Your task to perform on an android device: turn on improve location accuracy Image 0: 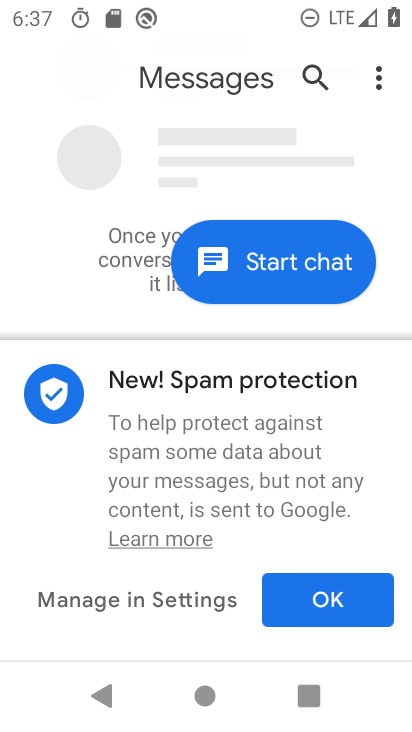
Step 0: press home button
Your task to perform on an android device: turn on improve location accuracy Image 1: 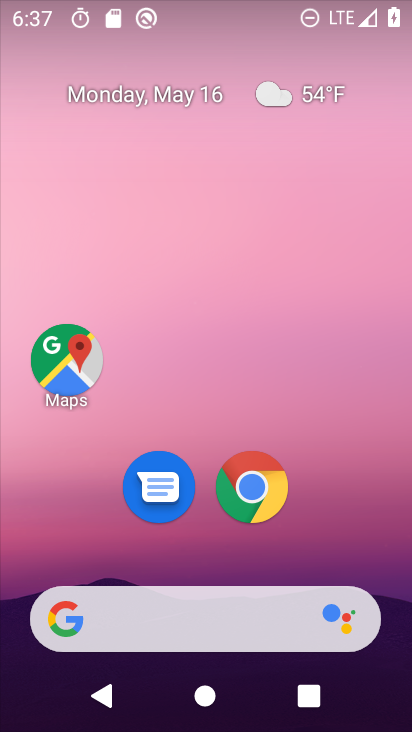
Step 1: drag from (178, 502) to (181, 103)
Your task to perform on an android device: turn on improve location accuracy Image 2: 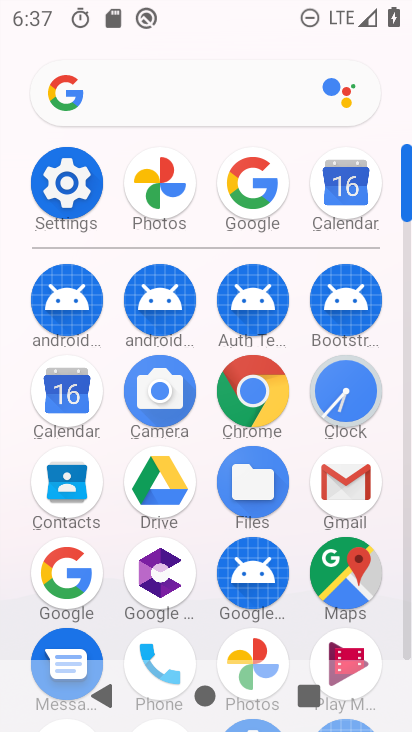
Step 2: click (74, 182)
Your task to perform on an android device: turn on improve location accuracy Image 3: 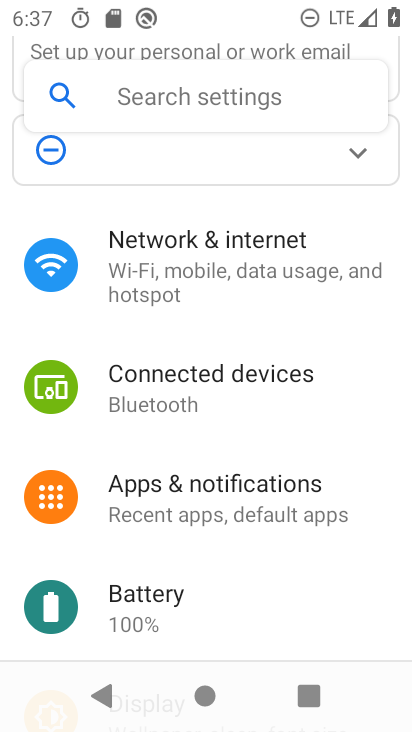
Step 3: drag from (176, 614) to (177, 254)
Your task to perform on an android device: turn on improve location accuracy Image 4: 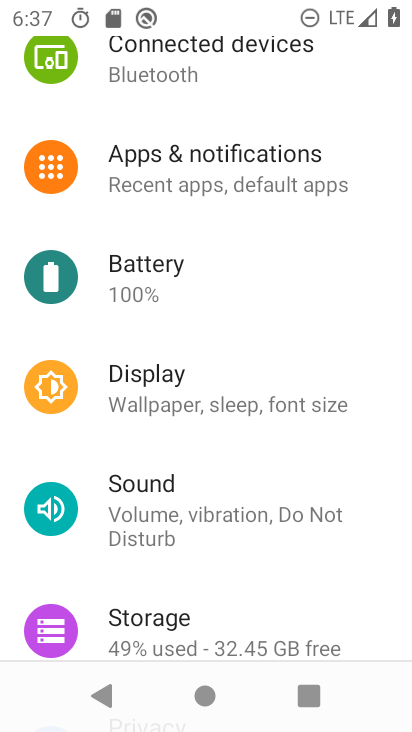
Step 4: drag from (169, 643) to (177, 352)
Your task to perform on an android device: turn on improve location accuracy Image 5: 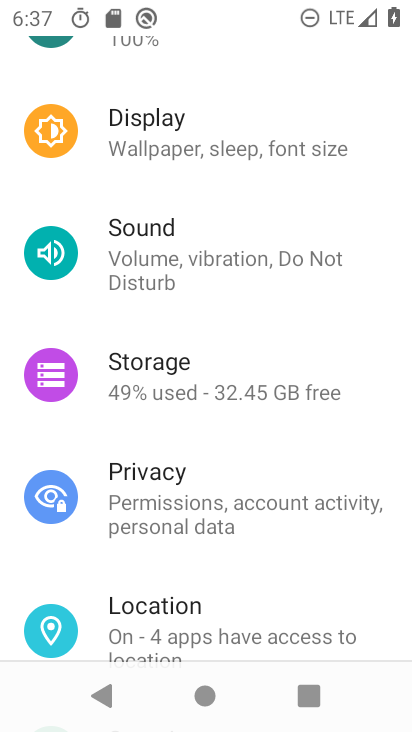
Step 5: click (171, 620)
Your task to perform on an android device: turn on improve location accuracy Image 6: 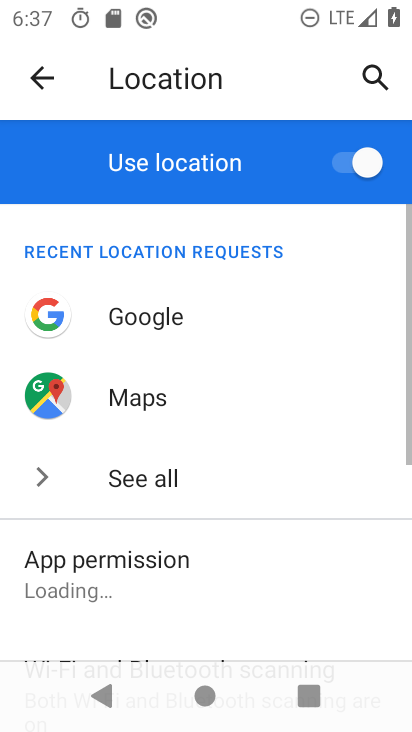
Step 6: drag from (204, 549) to (204, 197)
Your task to perform on an android device: turn on improve location accuracy Image 7: 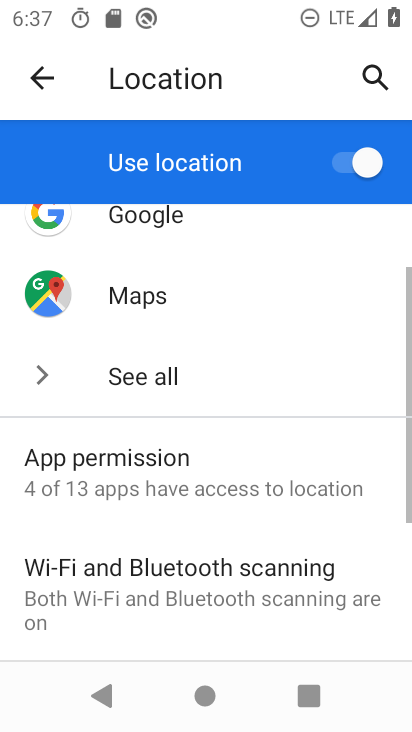
Step 7: drag from (173, 635) to (176, 325)
Your task to perform on an android device: turn on improve location accuracy Image 8: 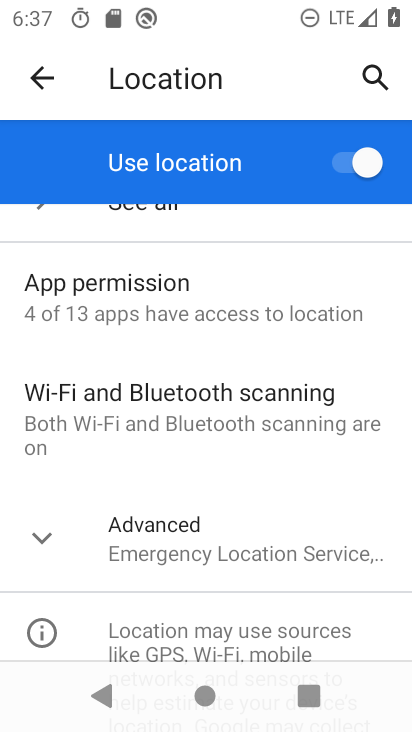
Step 8: click (160, 545)
Your task to perform on an android device: turn on improve location accuracy Image 9: 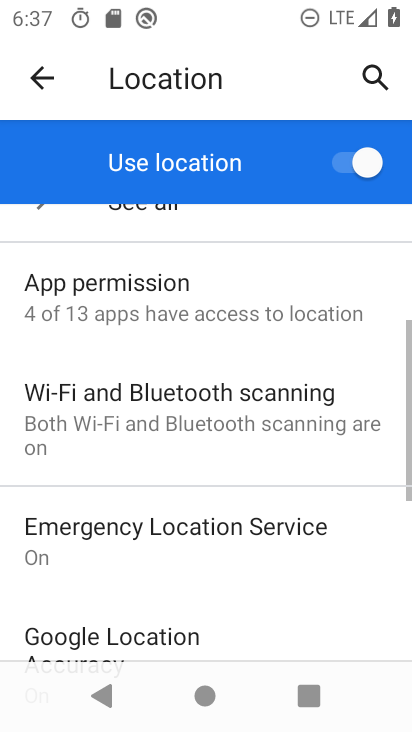
Step 9: drag from (199, 606) to (216, 253)
Your task to perform on an android device: turn on improve location accuracy Image 10: 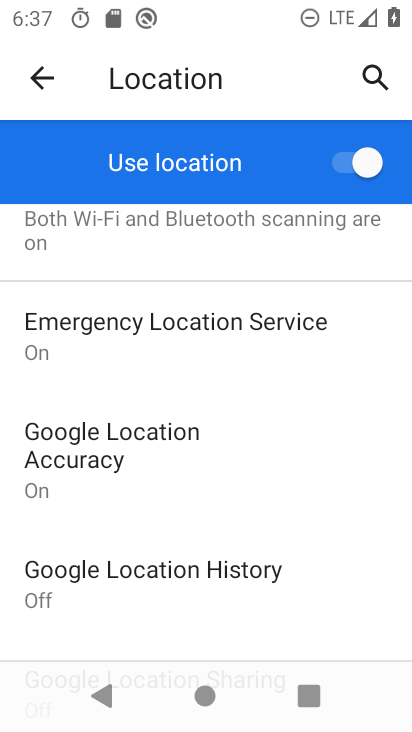
Step 10: click (103, 454)
Your task to perform on an android device: turn on improve location accuracy Image 11: 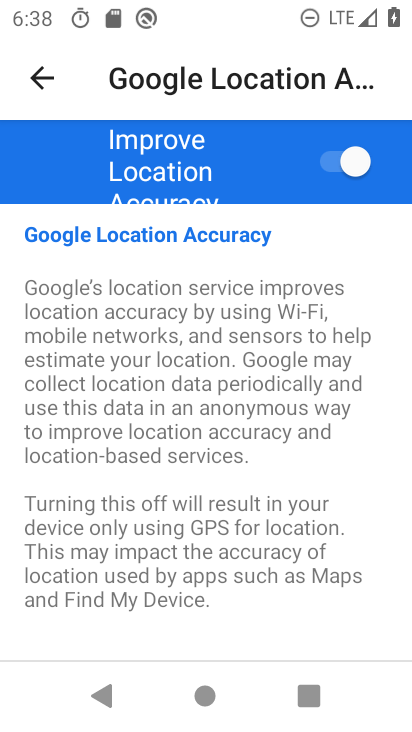
Step 11: task complete